Your task to perform on an android device: Show me popular videos on Youtube Image 0: 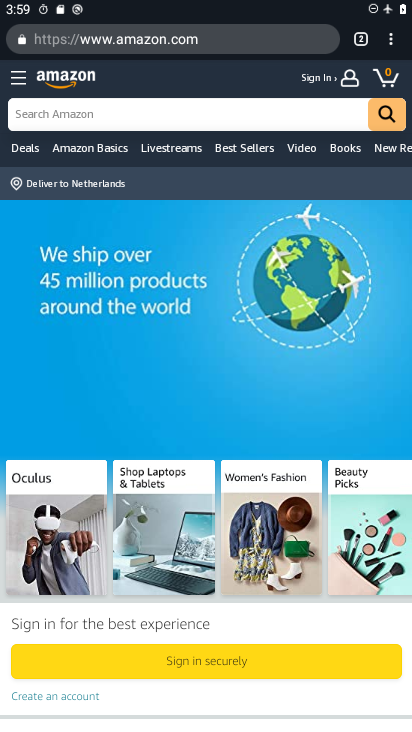
Step 0: press home button
Your task to perform on an android device: Show me popular videos on Youtube Image 1: 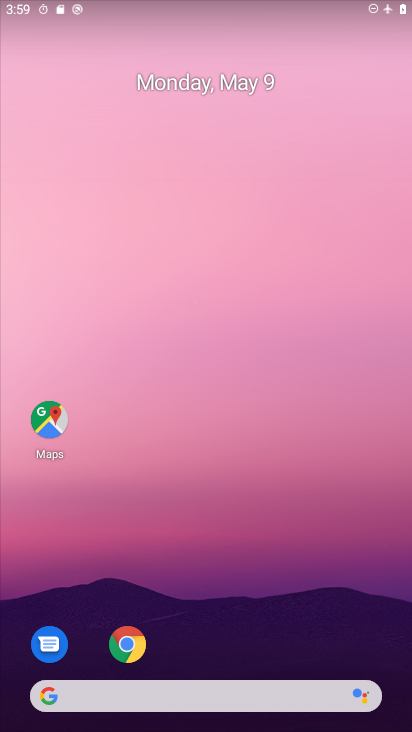
Step 1: drag from (304, 627) to (287, 166)
Your task to perform on an android device: Show me popular videos on Youtube Image 2: 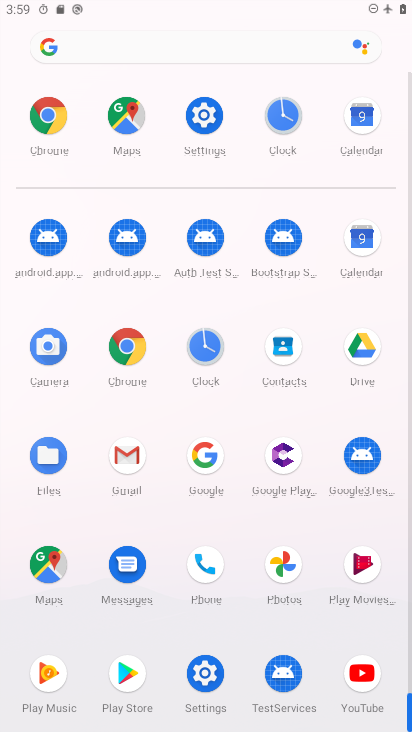
Step 2: click (360, 698)
Your task to perform on an android device: Show me popular videos on Youtube Image 3: 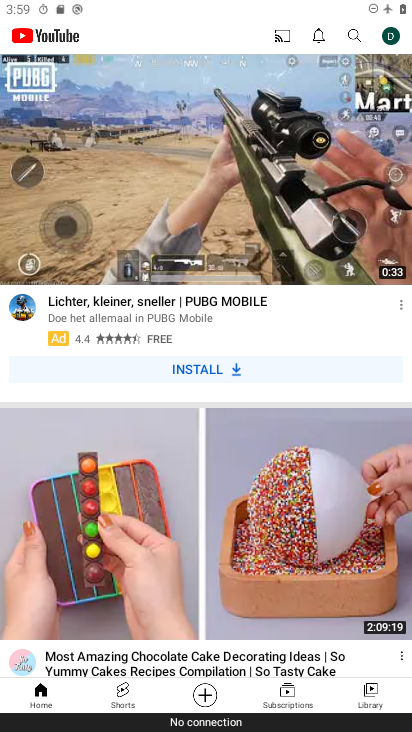
Step 3: drag from (315, 496) to (322, 122)
Your task to perform on an android device: Show me popular videos on Youtube Image 4: 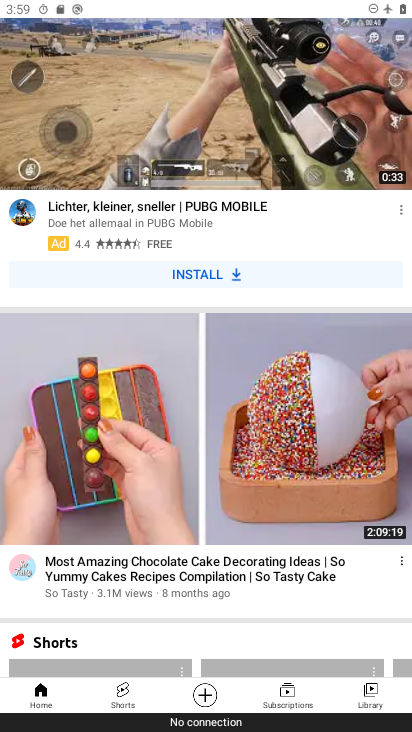
Step 4: drag from (307, 624) to (326, 118)
Your task to perform on an android device: Show me popular videos on Youtube Image 5: 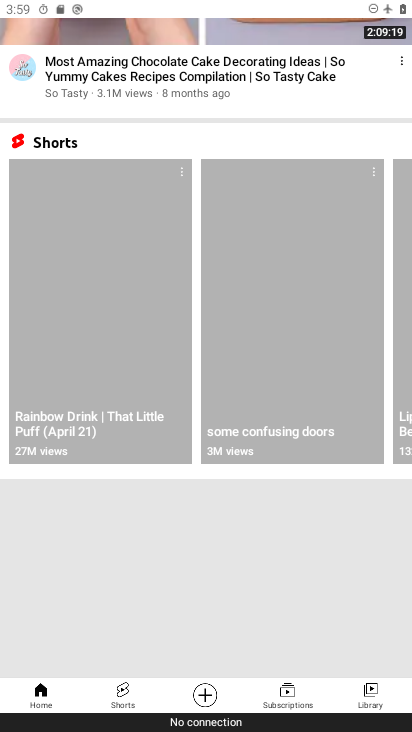
Step 5: drag from (235, 592) to (268, 337)
Your task to perform on an android device: Show me popular videos on Youtube Image 6: 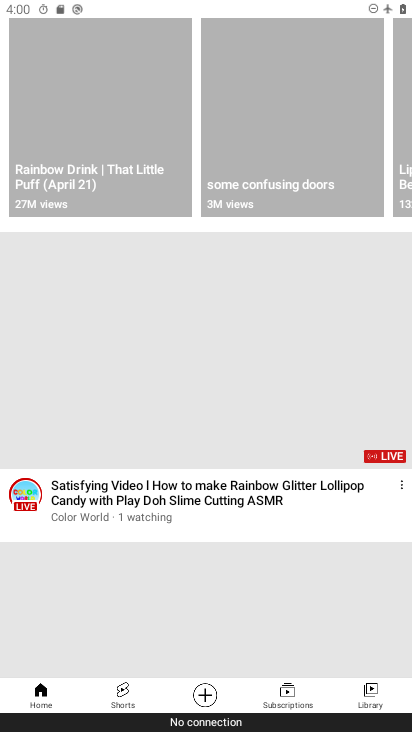
Step 6: drag from (246, 578) to (293, 389)
Your task to perform on an android device: Show me popular videos on Youtube Image 7: 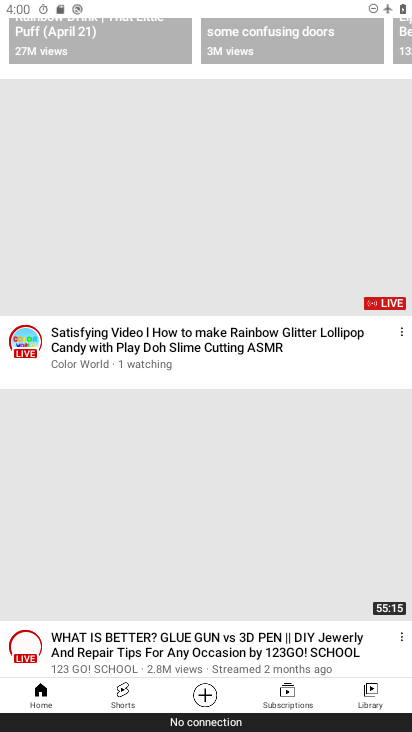
Step 7: press back button
Your task to perform on an android device: Show me popular videos on Youtube Image 8: 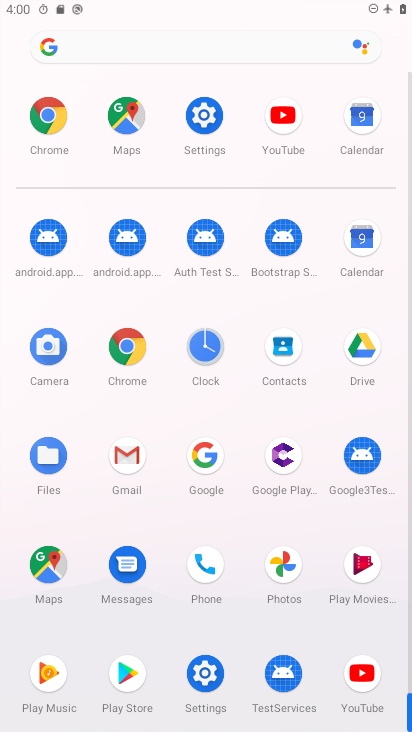
Step 8: click (209, 129)
Your task to perform on an android device: Show me popular videos on Youtube Image 9: 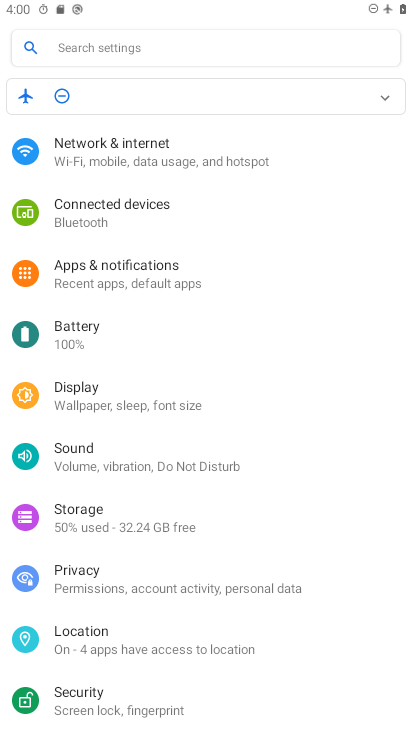
Step 9: click (373, 97)
Your task to perform on an android device: Show me popular videos on Youtube Image 10: 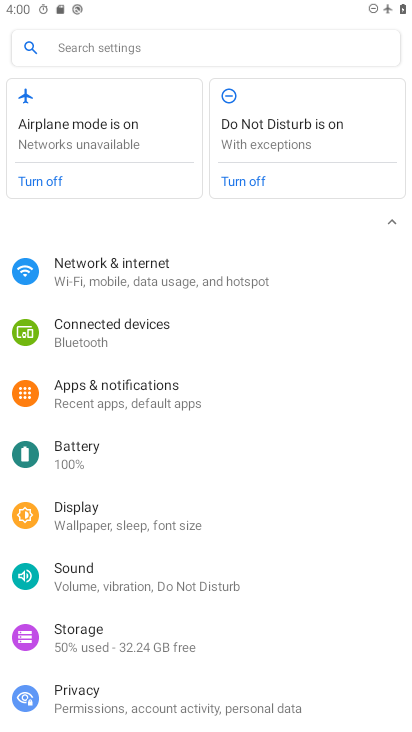
Step 10: click (29, 181)
Your task to perform on an android device: Show me popular videos on Youtube Image 11: 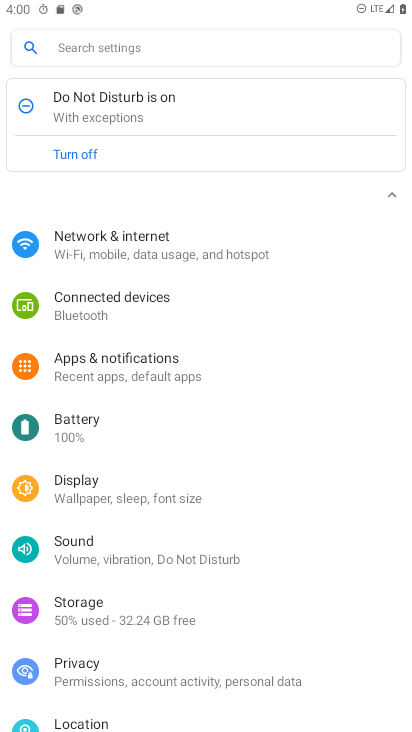
Step 11: press back button
Your task to perform on an android device: Show me popular videos on Youtube Image 12: 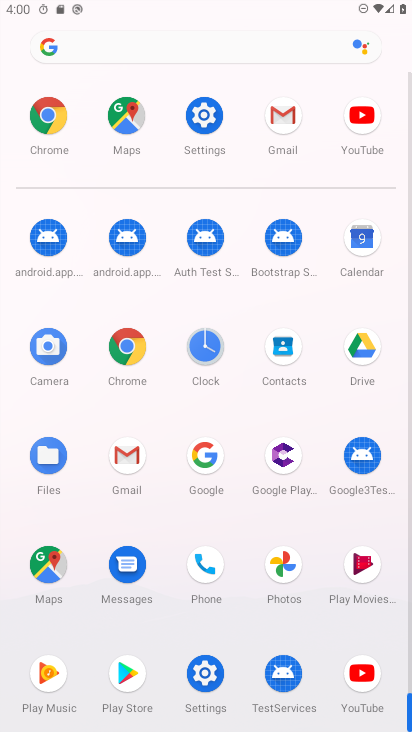
Step 12: click (362, 705)
Your task to perform on an android device: Show me popular videos on Youtube Image 13: 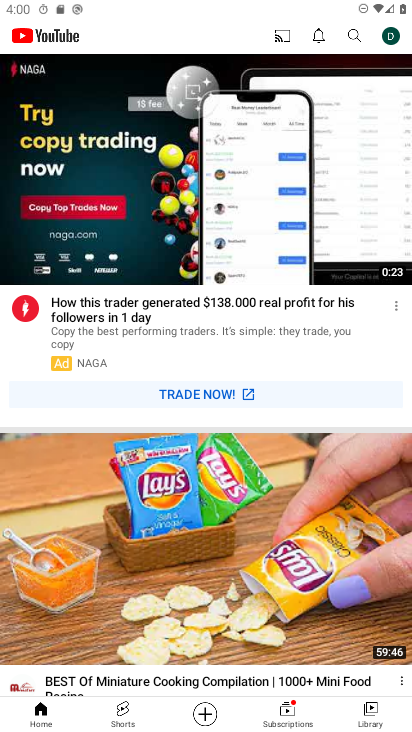
Step 13: task complete